Your task to perform on an android device: Go to Google Image 0: 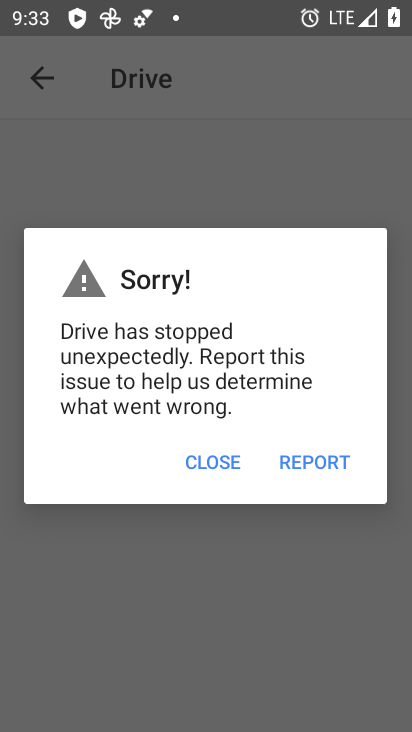
Step 0: press back button
Your task to perform on an android device: Go to Google Image 1: 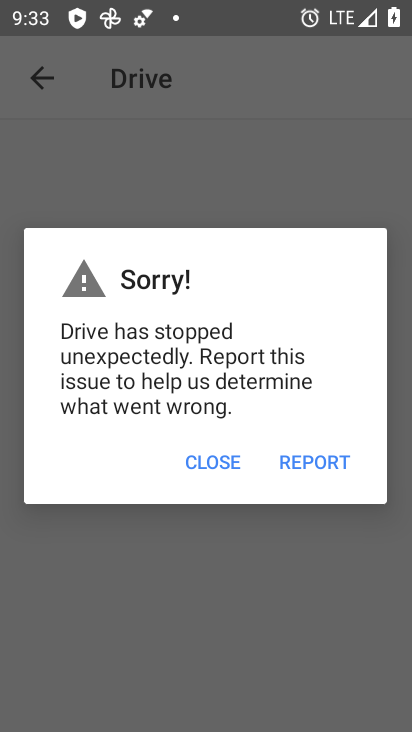
Step 1: press home button
Your task to perform on an android device: Go to Google Image 2: 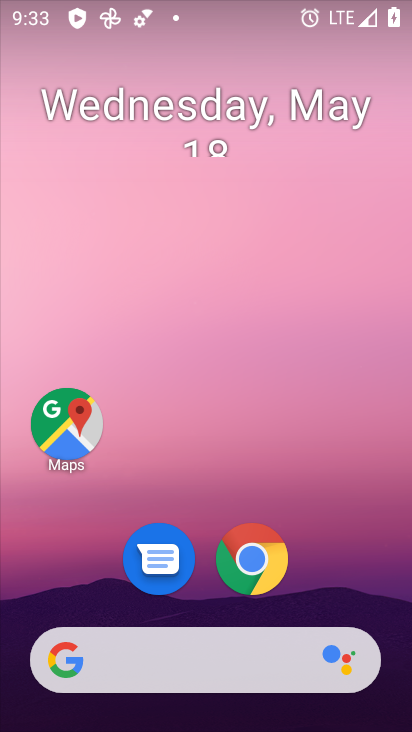
Step 2: drag from (328, 521) to (266, 1)
Your task to perform on an android device: Go to Google Image 3: 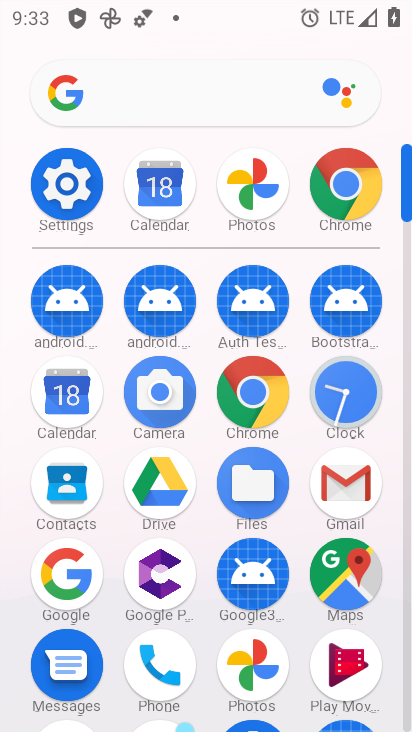
Step 3: drag from (10, 534) to (15, 228)
Your task to perform on an android device: Go to Google Image 4: 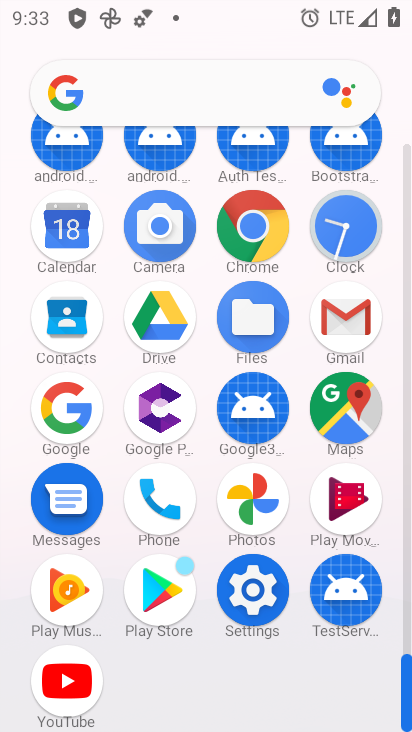
Step 4: click (253, 213)
Your task to perform on an android device: Go to Google Image 5: 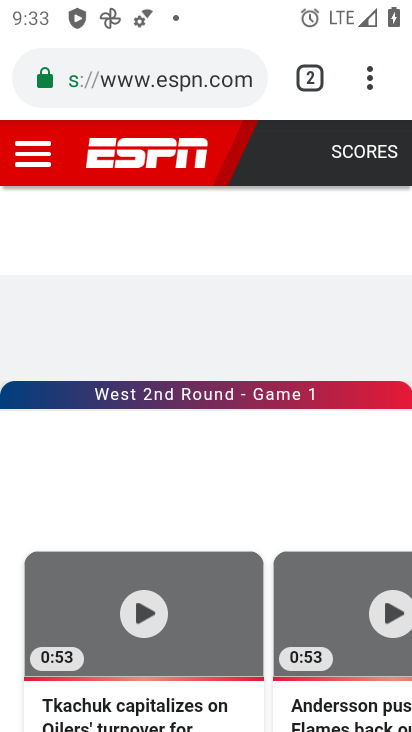
Step 5: click (184, 71)
Your task to perform on an android device: Go to Google Image 6: 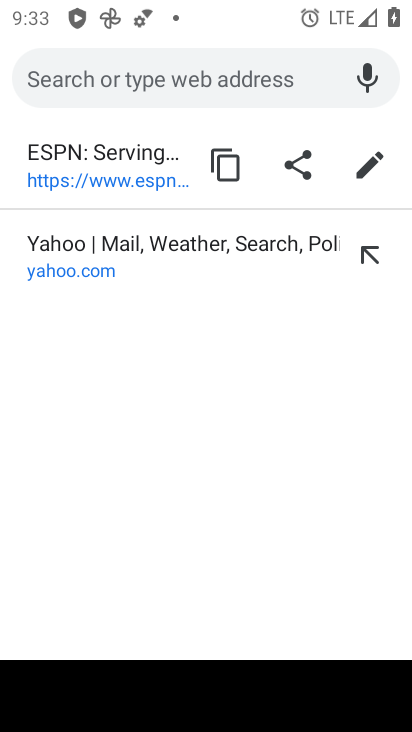
Step 6: type "Google"
Your task to perform on an android device: Go to Google Image 7: 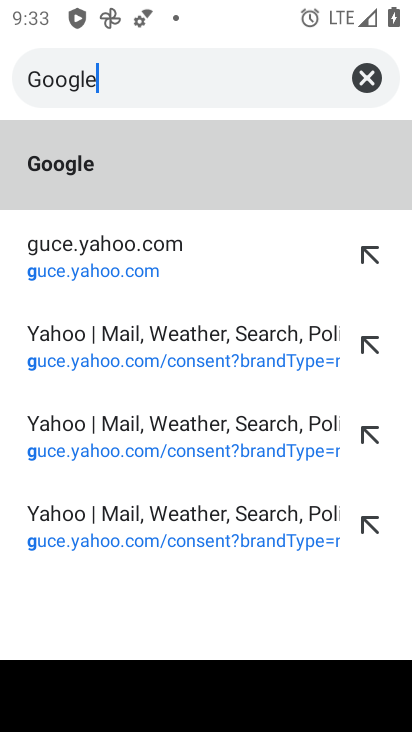
Step 7: type ""
Your task to perform on an android device: Go to Google Image 8: 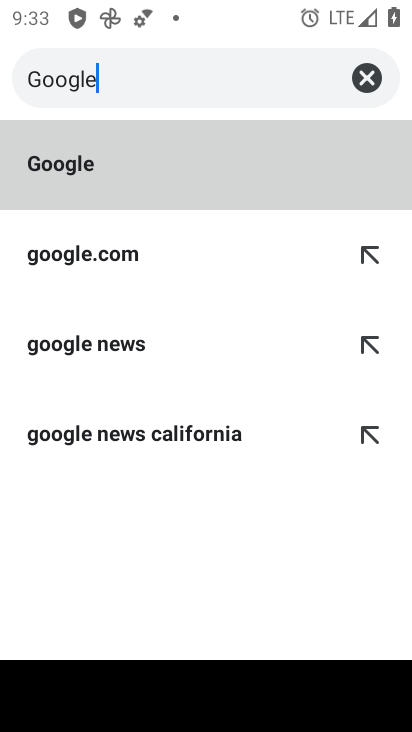
Step 8: click (60, 158)
Your task to perform on an android device: Go to Google Image 9: 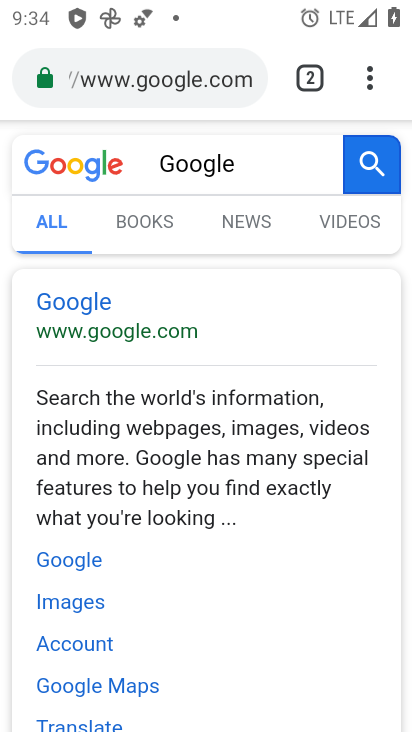
Step 9: click (78, 320)
Your task to perform on an android device: Go to Google Image 10: 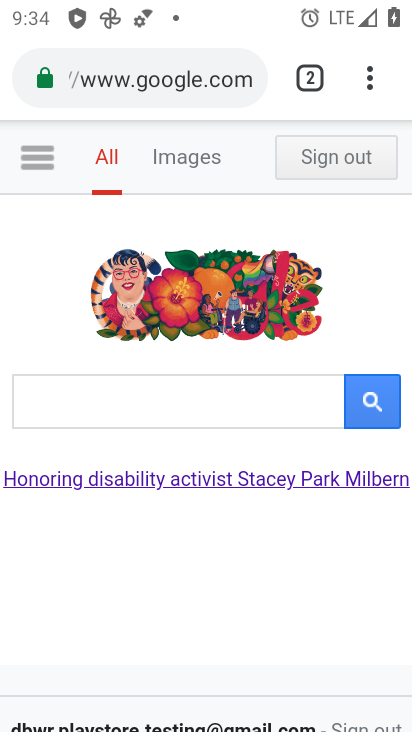
Step 10: task complete